Your task to perform on an android device: Show me popular games on the Play Store Image 0: 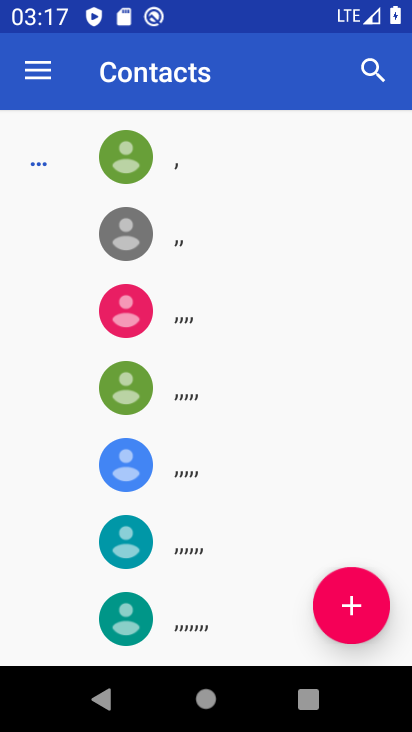
Step 0: press home button
Your task to perform on an android device: Show me popular games on the Play Store Image 1: 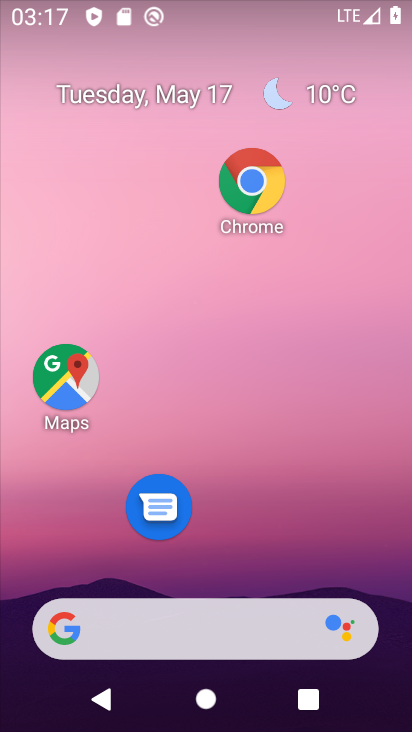
Step 1: drag from (266, 548) to (228, 9)
Your task to perform on an android device: Show me popular games on the Play Store Image 2: 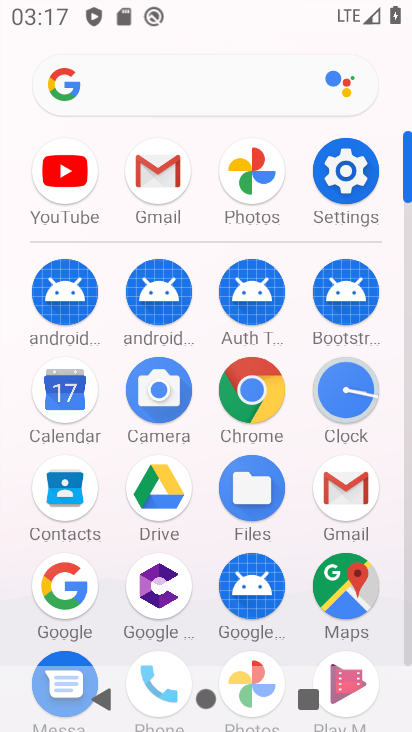
Step 2: drag from (184, 644) to (207, 262)
Your task to perform on an android device: Show me popular games on the Play Store Image 3: 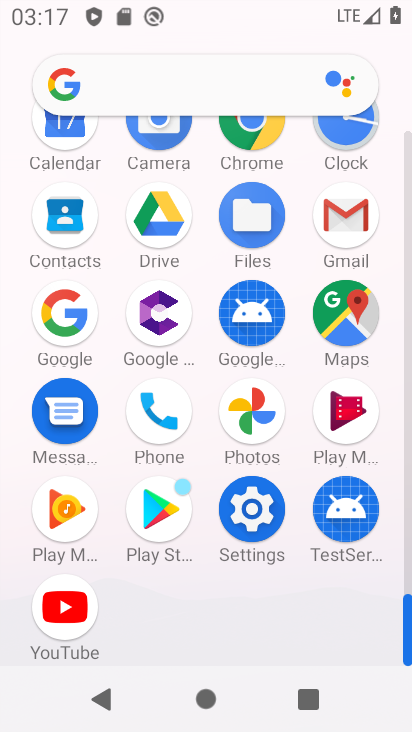
Step 3: click (157, 519)
Your task to perform on an android device: Show me popular games on the Play Store Image 4: 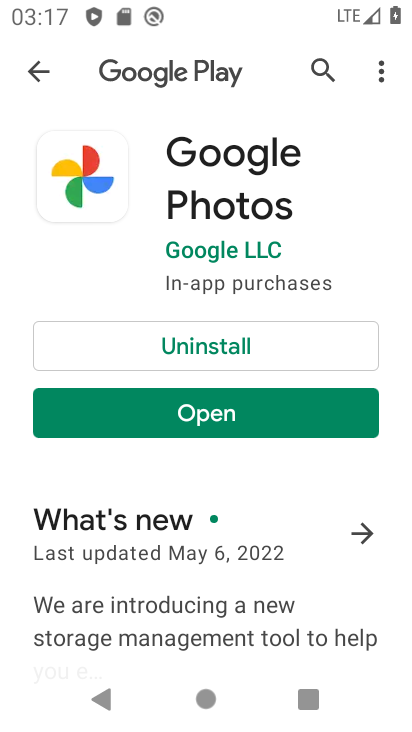
Step 4: click (37, 65)
Your task to perform on an android device: Show me popular games on the Play Store Image 5: 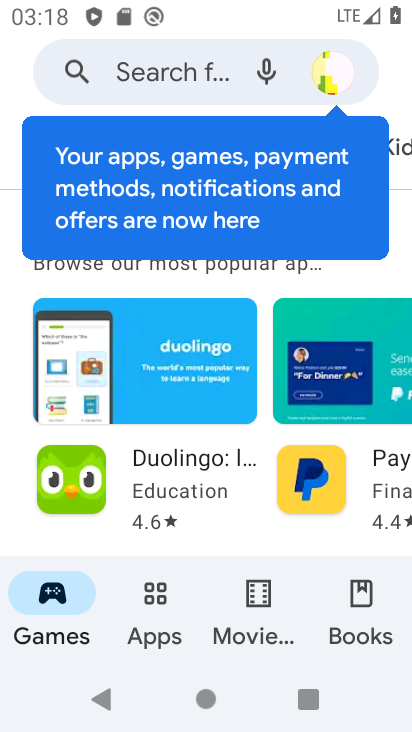
Step 5: click (35, 541)
Your task to perform on an android device: Show me popular games on the Play Store Image 6: 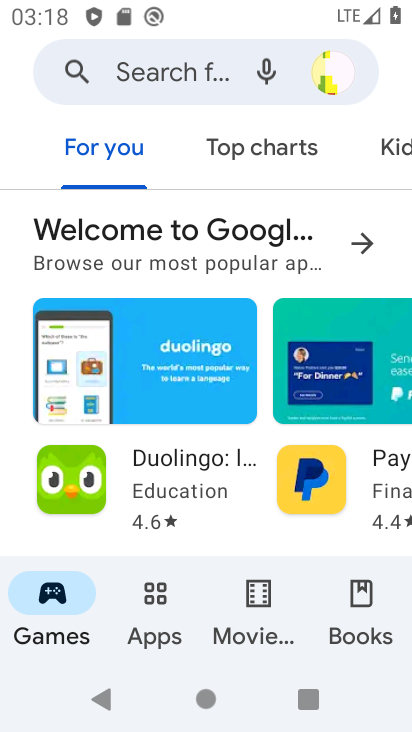
Step 6: click (254, 131)
Your task to perform on an android device: Show me popular games on the Play Store Image 7: 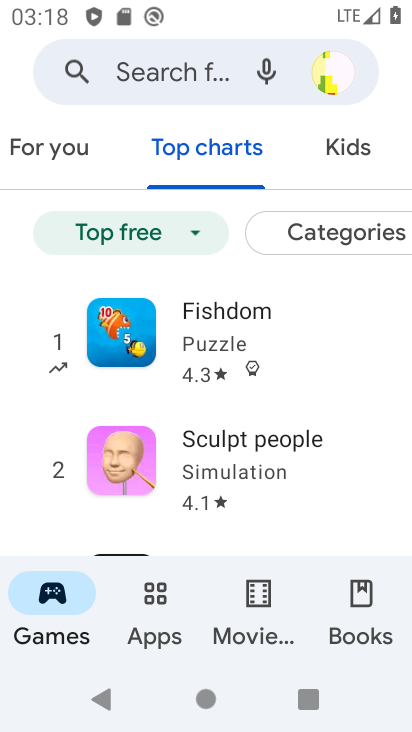
Step 7: task complete